Your task to perform on an android device: turn off location history Image 0: 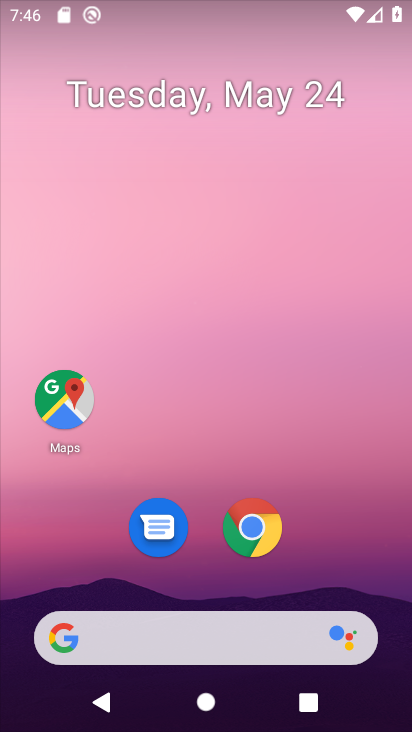
Step 0: drag from (340, 513) to (195, 135)
Your task to perform on an android device: turn off location history Image 1: 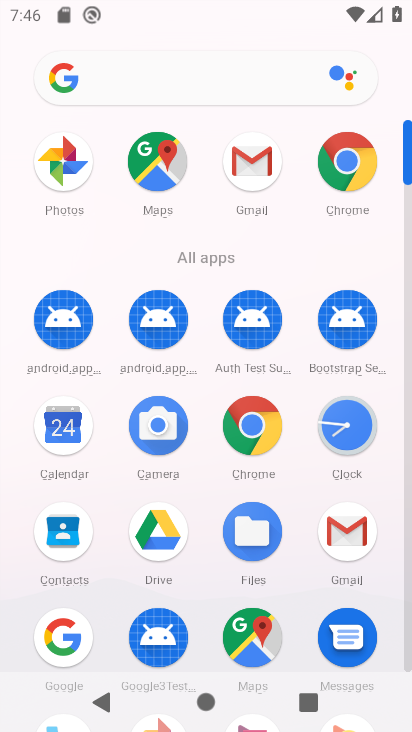
Step 1: drag from (204, 574) to (248, 266)
Your task to perform on an android device: turn off location history Image 2: 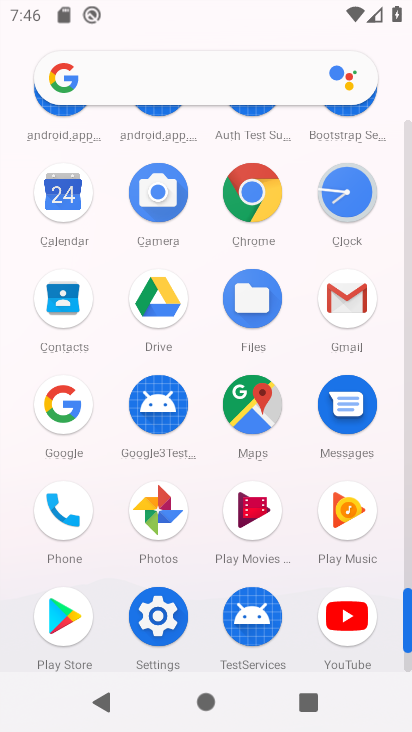
Step 2: click (168, 629)
Your task to perform on an android device: turn off location history Image 3: 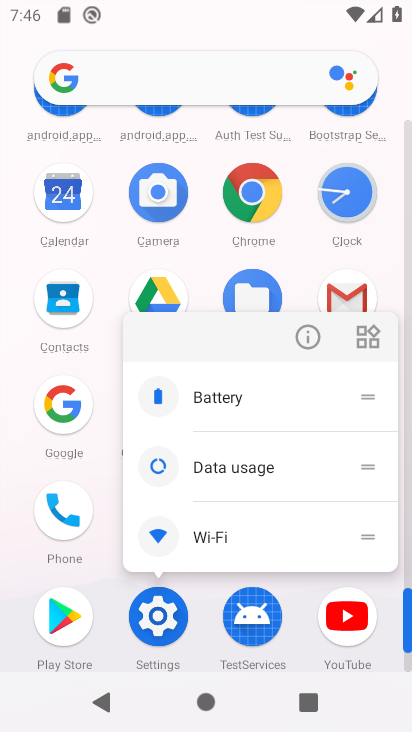
Step 3: click (162, 620)
Your task to perform on an android device: turn off location history Image 4: 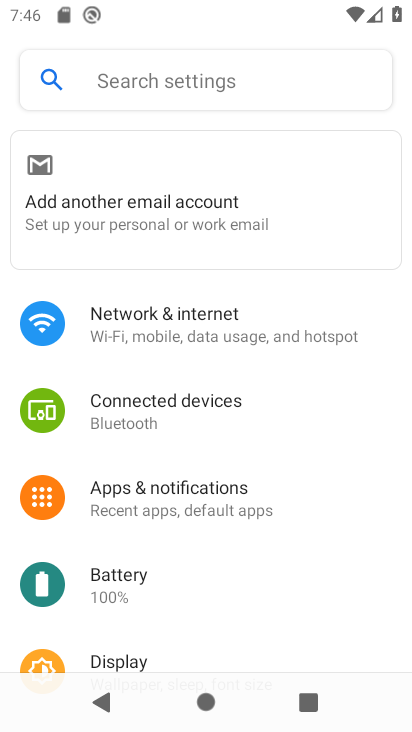
Step 4: drag from (262, 572) to (266, 182)
Your task to perform on an android device: turn off location history Image 5: 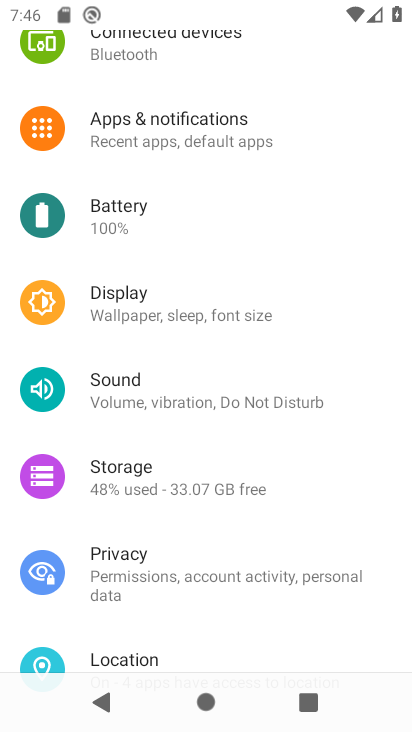
Step 5: drag from (162, 574) to (349, 287)
Your task to perform on an android device: turn off location history Image 6: 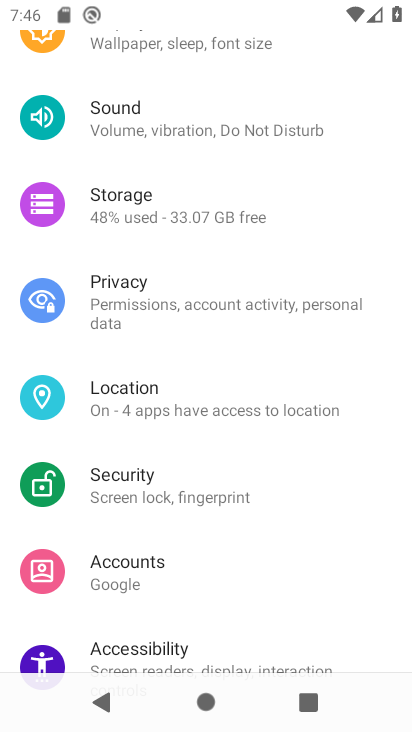
Step 6: click (241, 415)
Your task to perform on an android device: turn off location history Image 7: 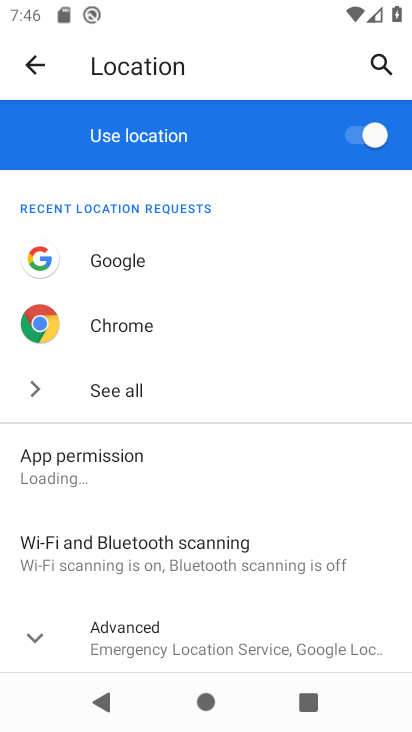
Step 7: drag from (223, 601) to (349, 304)
Your task to perform on an android device: turn off location history Image 8: 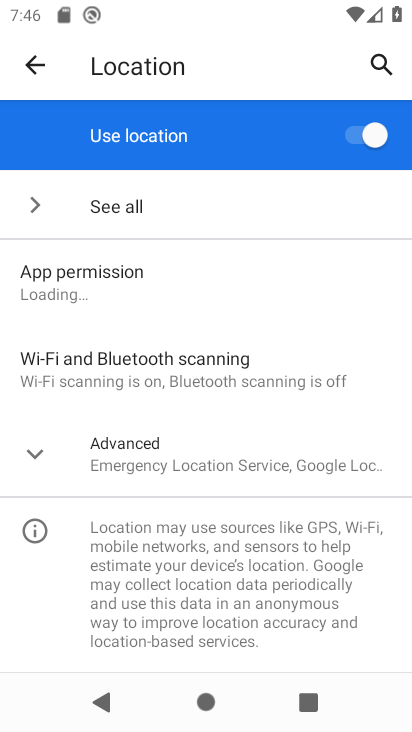
Step 8: click (111, 475)
Your task to perform on an android device: turn off location history Image 9: 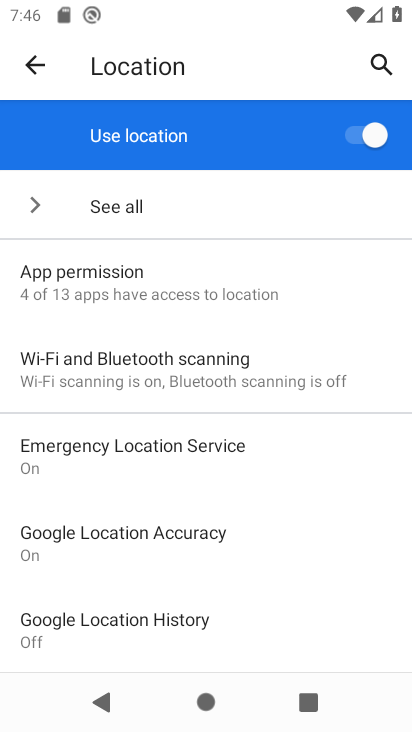
Step 9: click (182, 630)
Your task to perform on an android device: turn off location history Image 10: 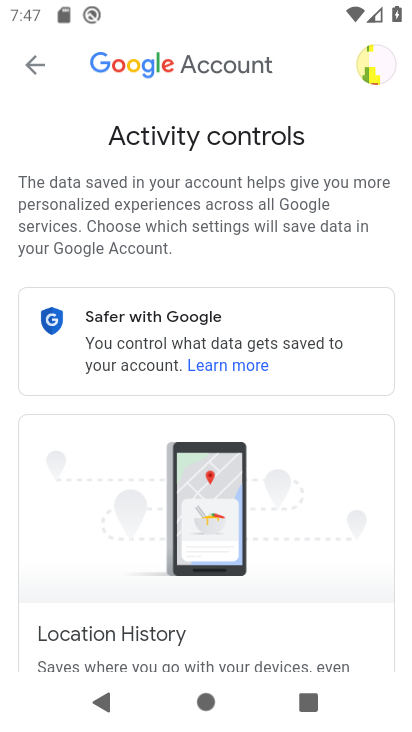
Step 10: drag from (320, 626) to (389, 151)
Your task to perform on an android device: turn off location history Image 11: 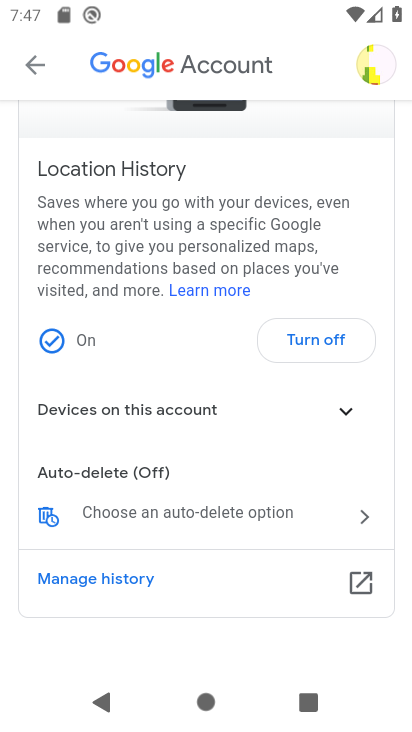
Step 11: click (333, 325)
Your task to perform on an android device: turn off location history Image 12: 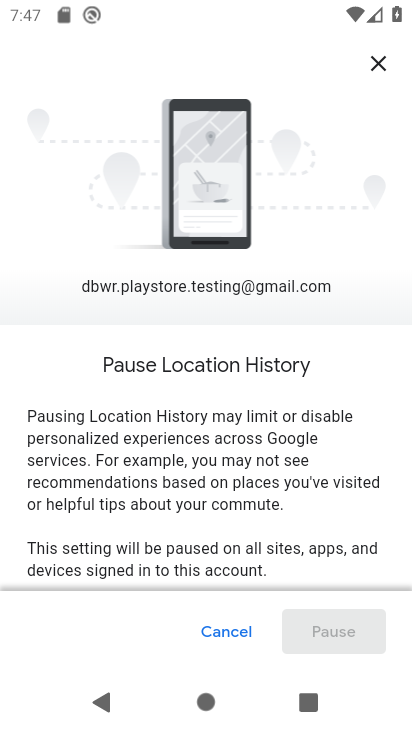
Step 12: drag from (301, 584) to (391, 306)
Your task to perform on an android device: turn off location history Image 13: 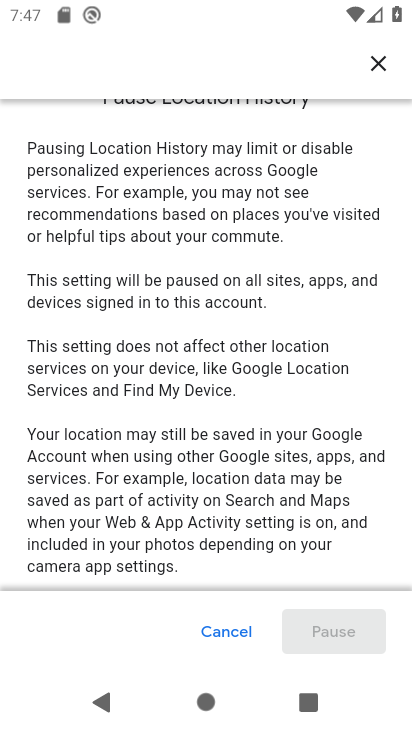
Step 13: drag from (318, 448) to (395, 222)
Your task to perform on an android device: turn off location history Image 14: 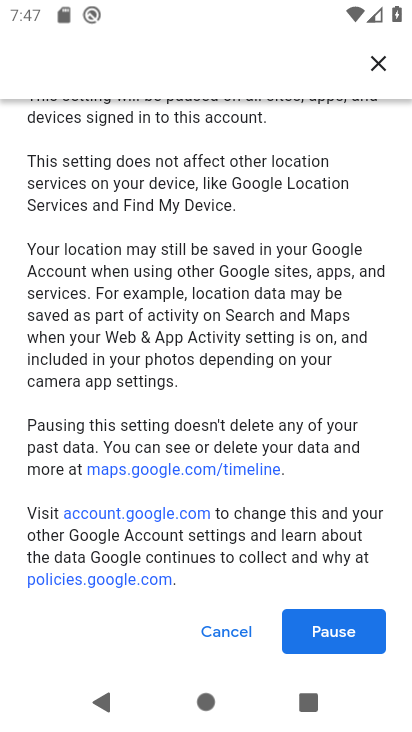
Step 14: click (361, 627)
Your task to perform on an android device: turn off location history Image 15: 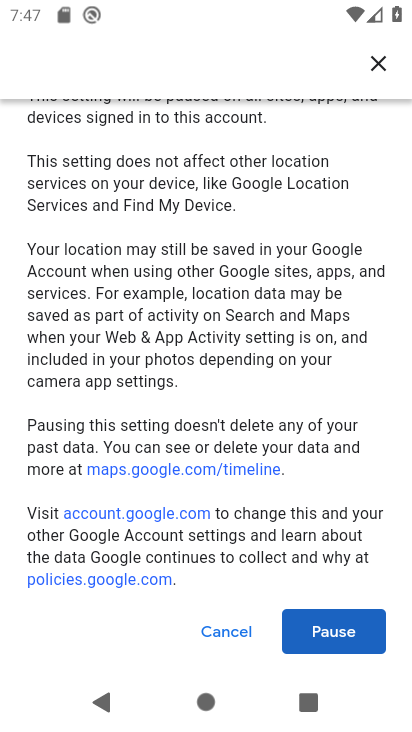
Step 15: click (361, 627)
Your task to perform on an android device: turn off location history Image 16: 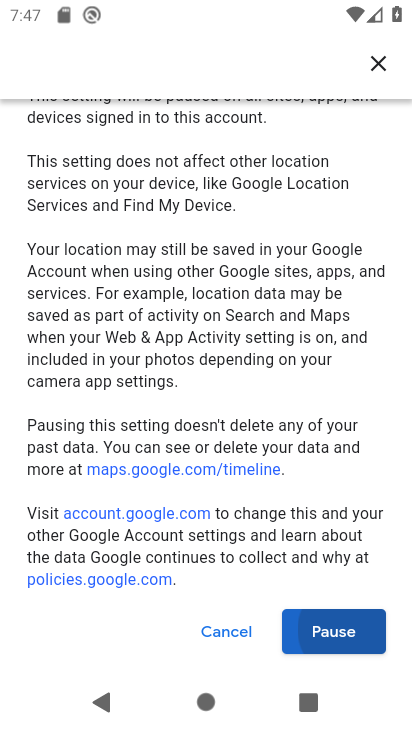
Step 16: click (342, 635)
Your task to perform on an android device: turn off location history Image 17: 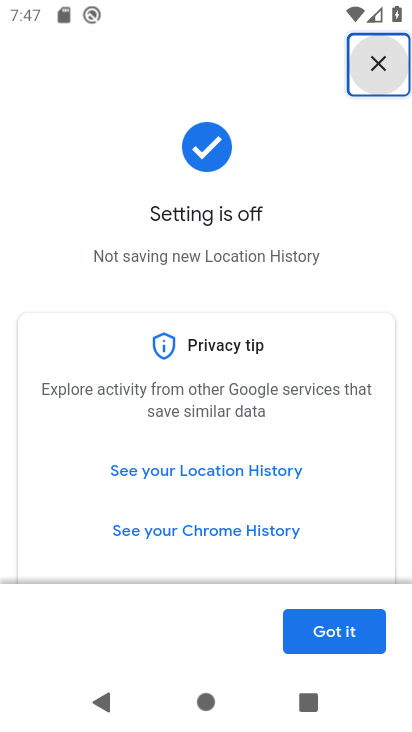
Step 17: task complete